Your task to perform on an android device: turn off translation in the chrome app Image 0: 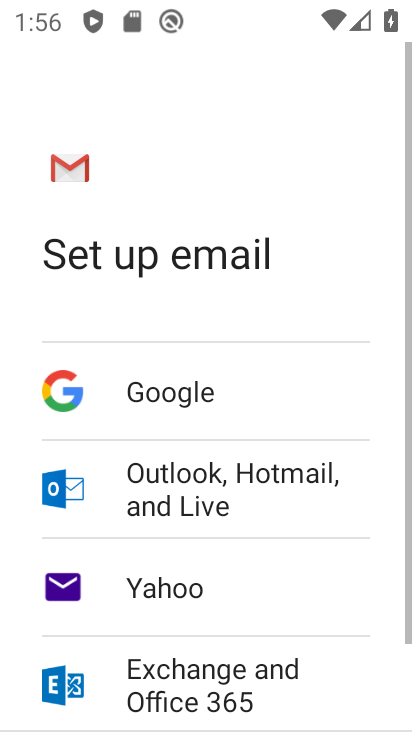
Step 0: press home button
Your task to perform on an android device: turn off translation in the chrome app Image 1: 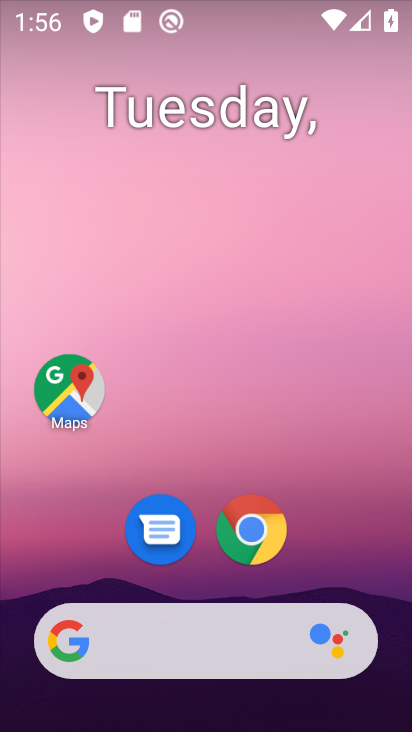
Step 1: click (268, 548)
Your task to perform on an android device: turn off translation in the chrome app Image 2: 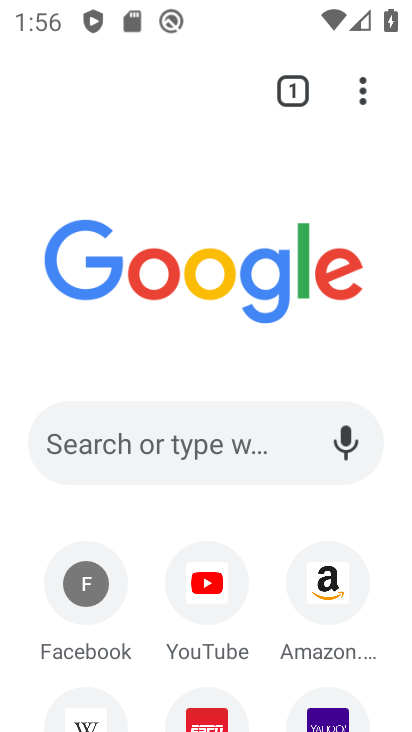
Step 2: click (363, 111)
Your task to perform on an android device: turn off translation in the chrome app Image 3: 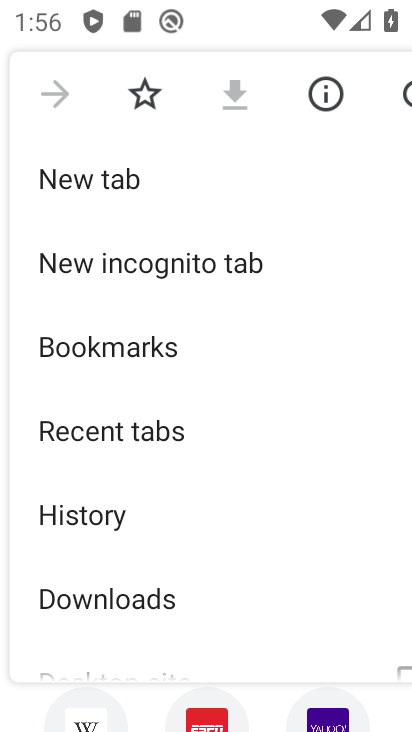
Step 3: drag from (173, 621) to (158, 197)
Your task to perform on an android device: turn off translation in the chrome app Image 4: 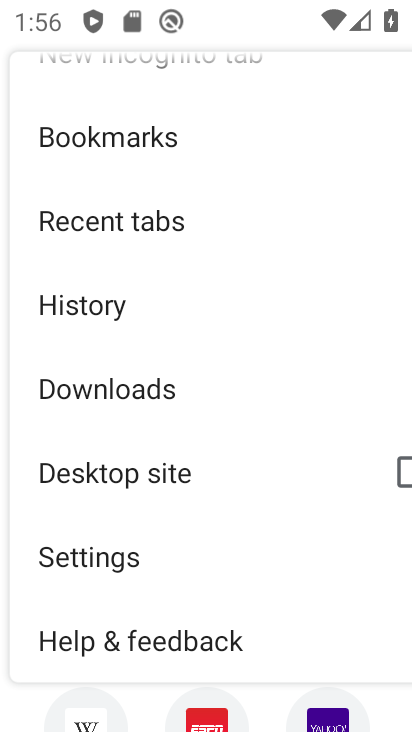
Step 4: click (147, 558)
Your task to perform on an android device: turn off translation in the chrome app Image 5: 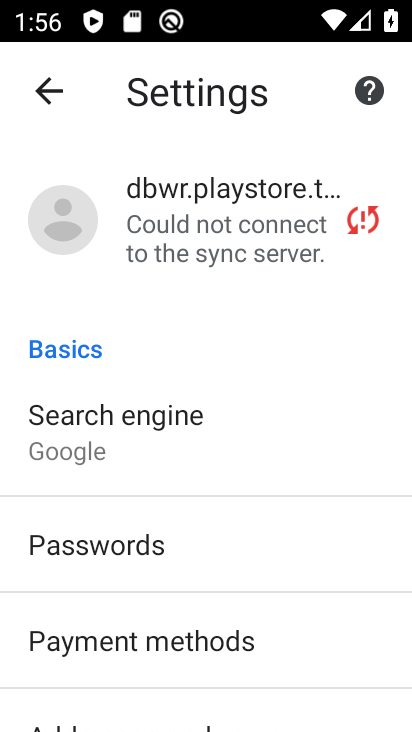
Step 5: drag from (199, 679) to (186, 186)
Your task to perform on an android device: turn off translation in the chrome app Image 6: 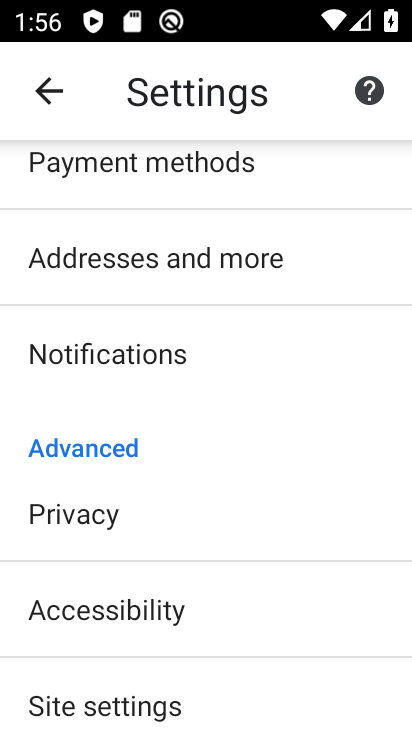
Step 6: drag from (239, 564) to (221, 472)
Your task to perform on an android device: turn off translation in the chrome app Image 7: 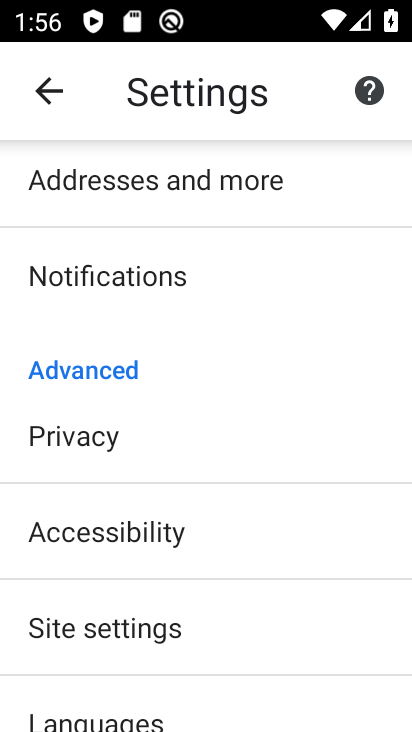
Step 7: drag from (239, 705) to (202, 437)
Your task to perform on an android device: turn off translation in the chrome app Image 8: 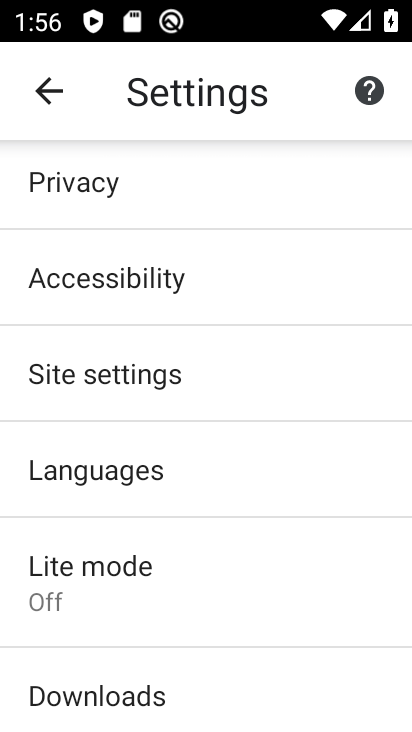
Step 8: click (129, 474)
Your task to perform on an android device: turn off translation in the chrome app Image 9: 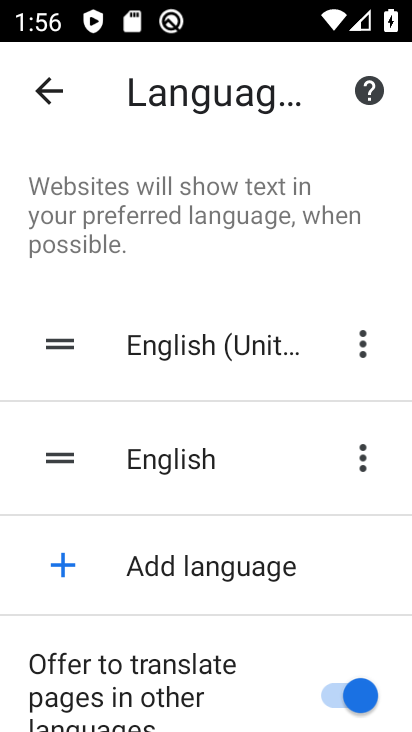
Step 9: click (344, 692)
Your task to perform on an android device: turn off translation in the chrome app Image 10: 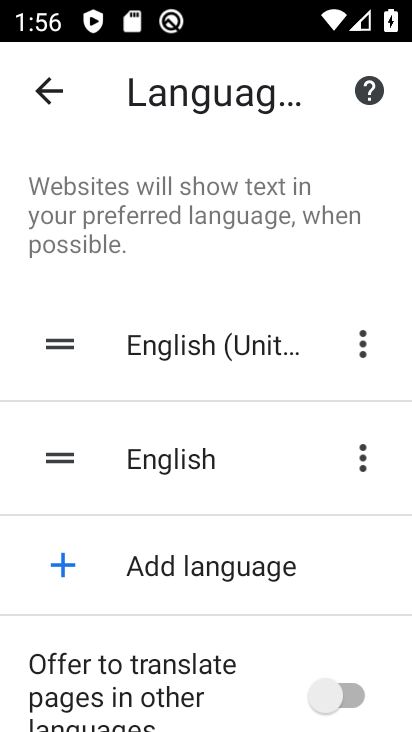
Step 10: task complete